Your task to perform on an android device: search for starred emails in the gmail app Image 0: 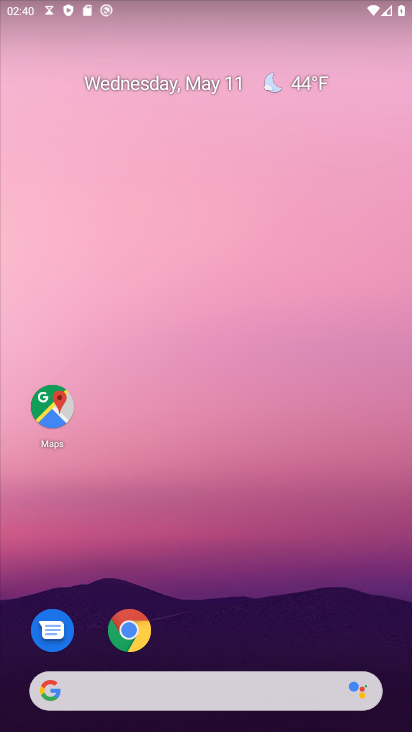
Step 0: drag from (214, 730) to (253, 0)
Your task to perform on an android device: search for starred emails in the gmail app Image 1: 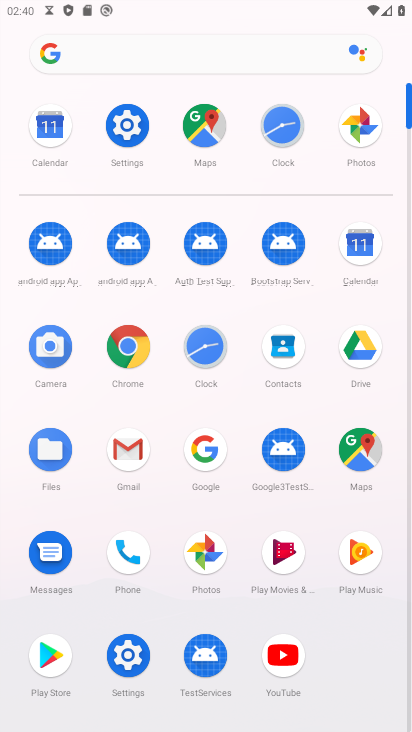
Step 1: click (130, 441)
Your task to perform on an android device: search for starred emails in the gmail app Image 2: 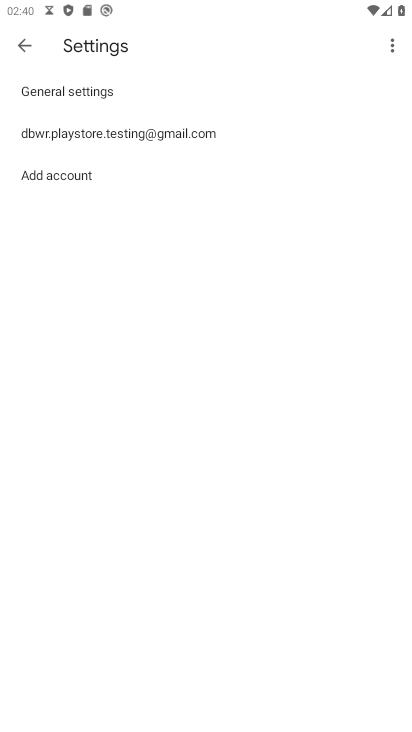
Step 2: click (25, 49)
Your task to perform on an android device: search for starred emails in the gmail app Image 3: 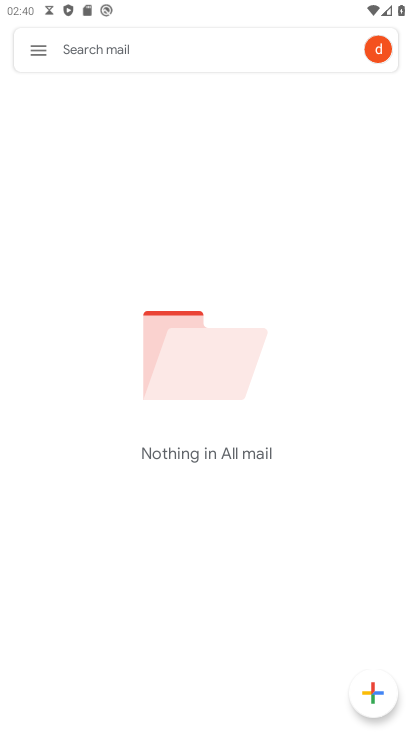
Step 3: click (31, 50)
Your task to perform on an android device: search for starred emails in the gmail app Image 4: 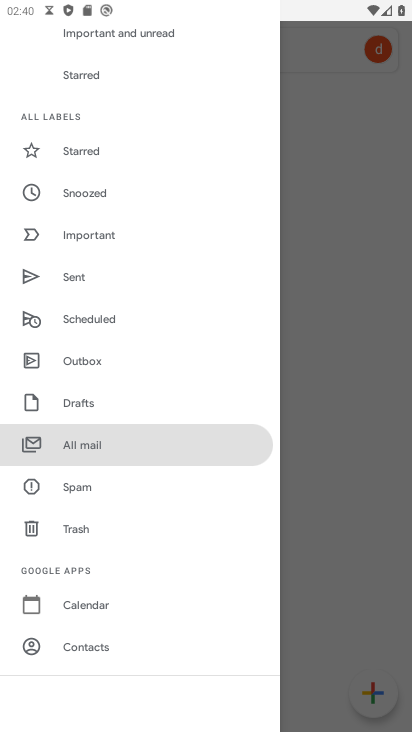
Step 4: click (74, 154)
Your task to perform on an android device: search for starred emails in the gmail app Image 5: 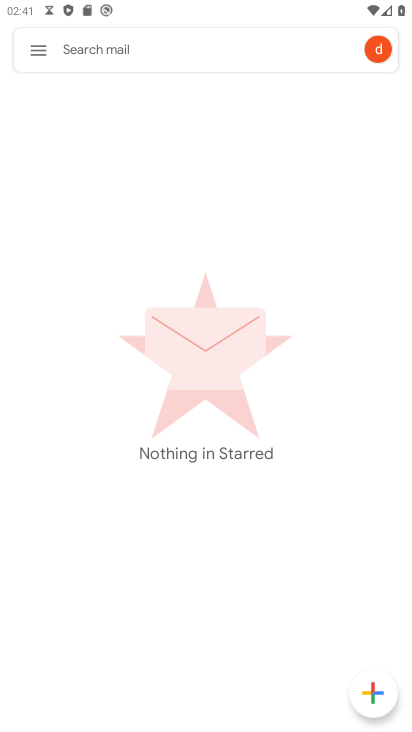
Step 5: task complete